Your task to perform on an android device: turn on wifi Image 0: 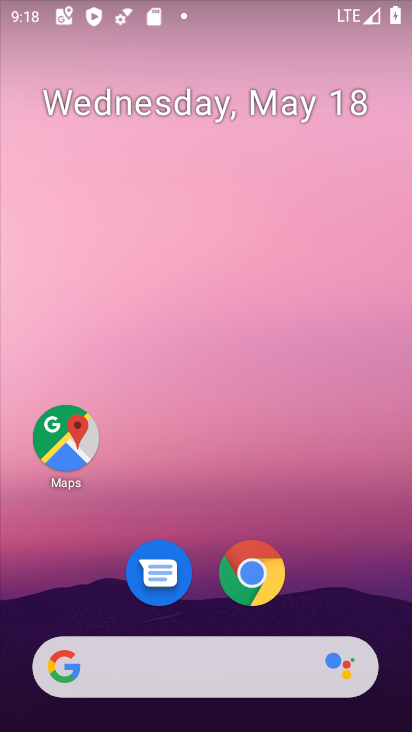
Step 0: drag from (269, 705) to (252, 32)
Your task to perform on an android device: turn on wifi Image 1: 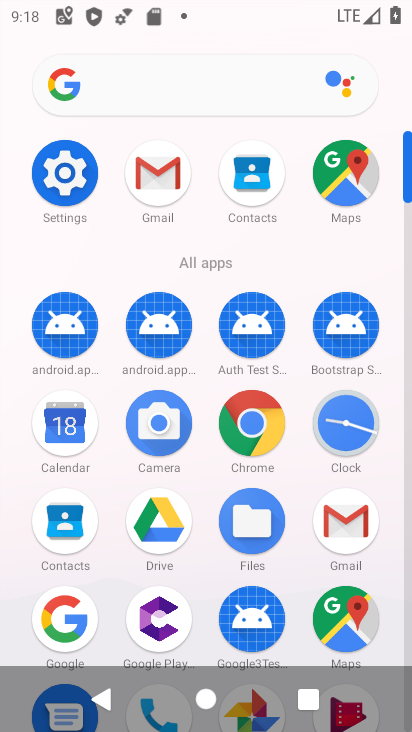
Step 1: click (63, 169)
Your task to perform on an android device: turn on wifi Image 2: 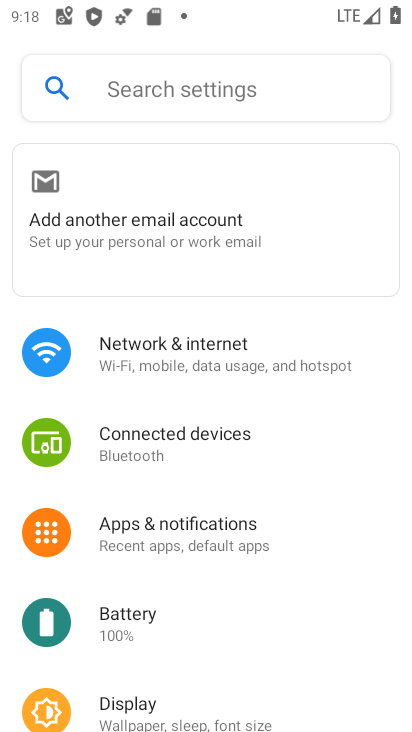
Step 2: click (296, 359)
Your task to perform on an android device: turn on wifi Image 3: 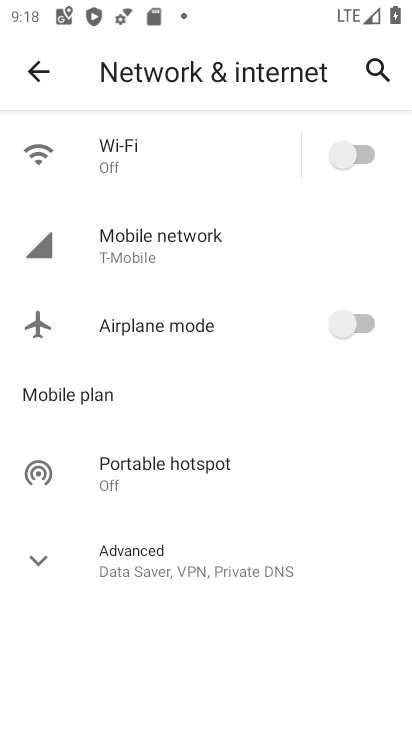
Step 3: click (340, 155)
Your task to perform on an android device: turn on wifi Image 4: 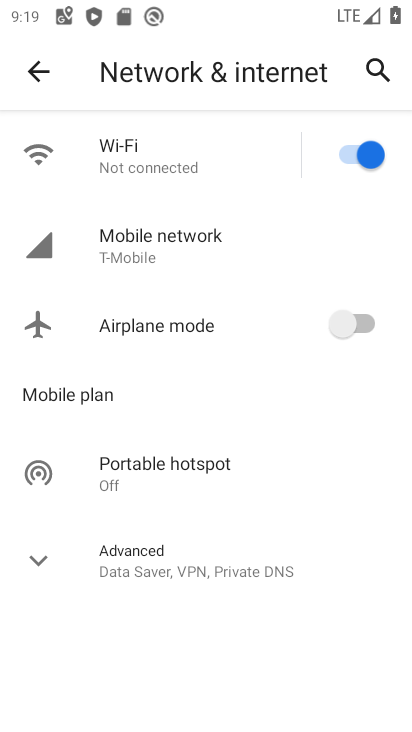
Step 4: task complete